Your task to perform on an android device: Turn on the flashlight Image 0: 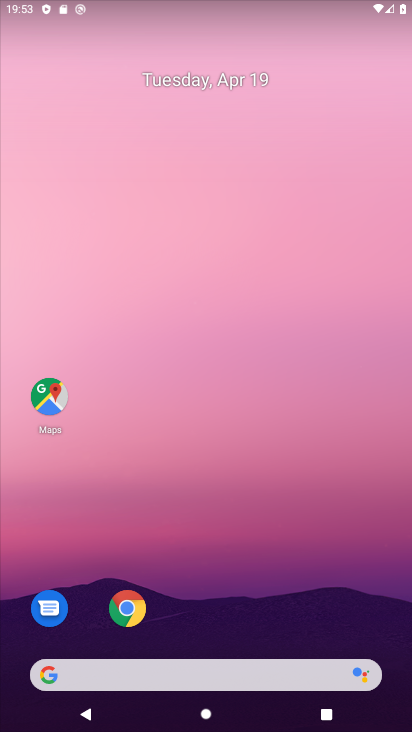
Step 0: drag from (232, 618) to (258, 56)
Your task to perform on an android device: Turn on the flashlight Image 1: 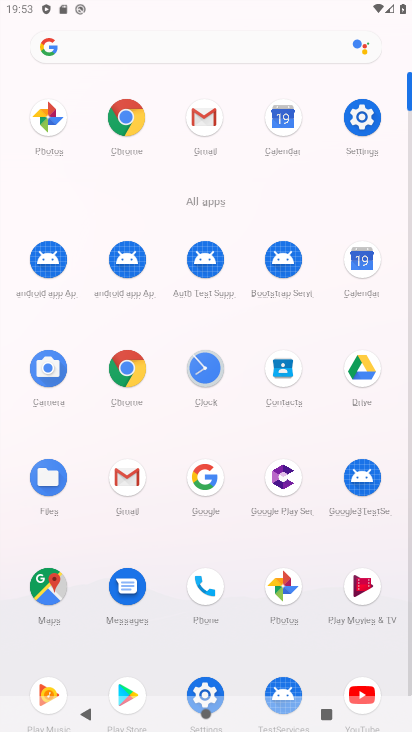
Step 1: click (379, 145)
Your task to perform on an android device: Turn on the flashlight Image 2: 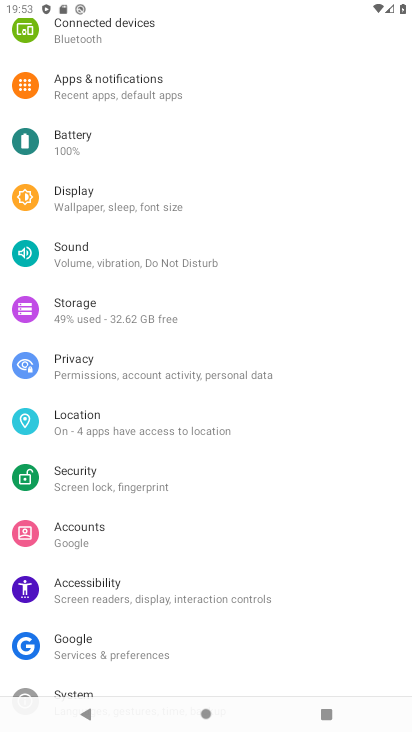
Step 2: click (182, 415)
Your task to perform on an android device: Turn on the flashlight Image 3: 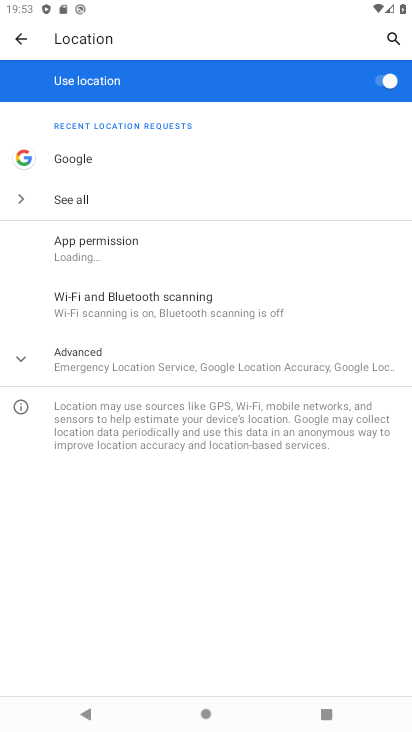
Step 3: task complete